Your task to perform on an android device: Open ESPN.com Image 0: 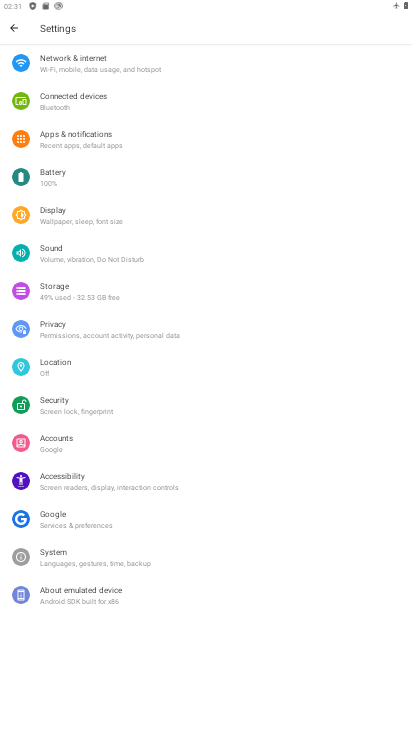
Step 0: press home button
Your task to perform on an android device: Open ESPN.com Image 1: 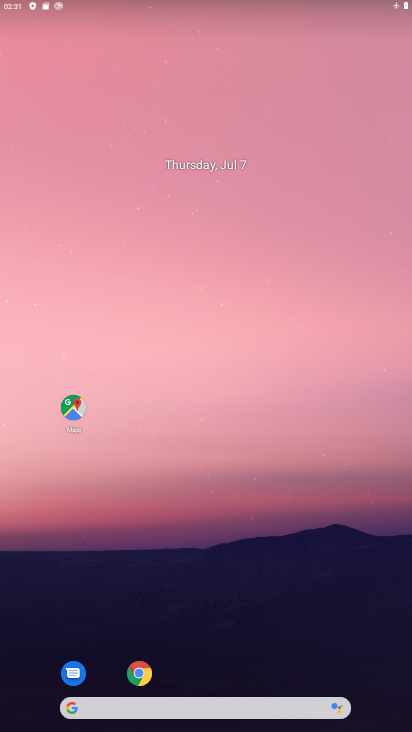
Step 1: click (145, 667)
Your task to perform on an android device: Open ESPN.com Image 2: 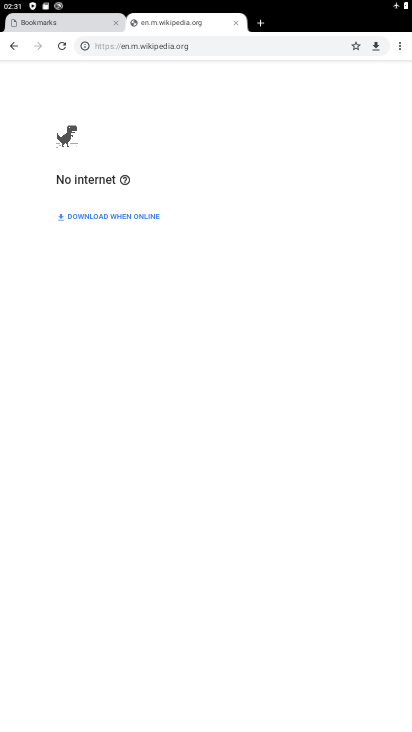
Step 2: task complete